Your task to perform on an android device: open a new tab in the chrome app Image 0: 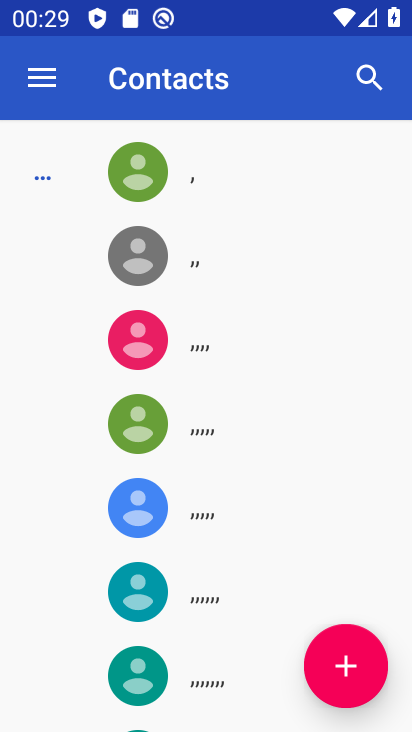
Step 0: press home button
Your task to perform on an android device: open a new tab in the chrome app Image 1: 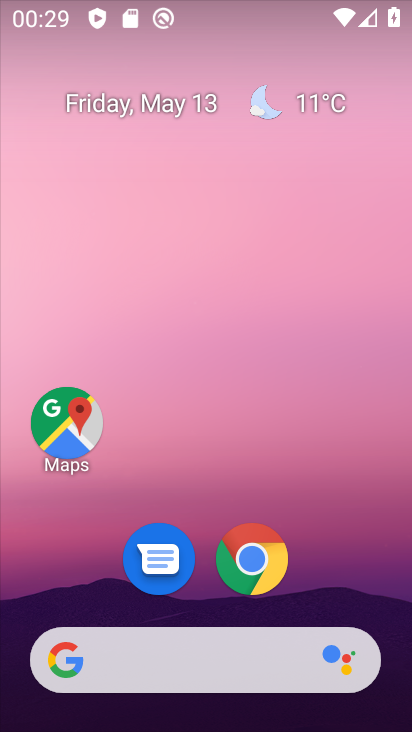
Step 1: click (250, 559)
Your task to perform on an android device: open a new tab in the chrome app Image 2: 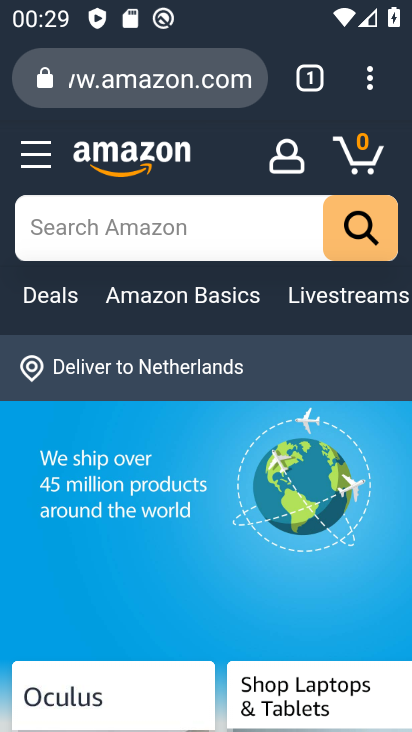
Step 2: click (309, 77)
Your task to perform on an android device: open a new tab in the chrome app Image 3: 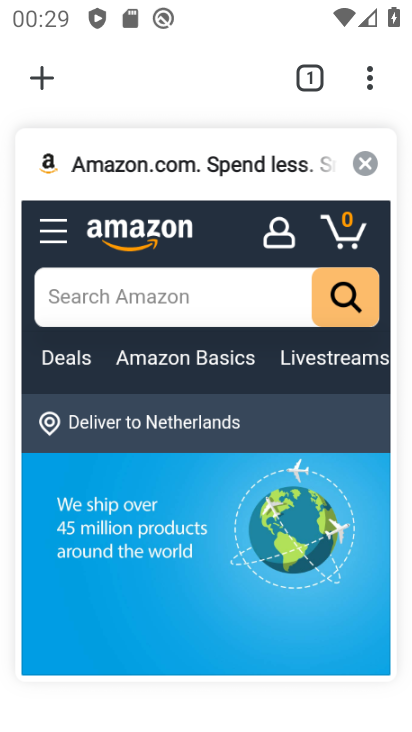
Step 3: click (48, 78)
Your task to perform on an android device: open a new tab in the chrome app Image 4: 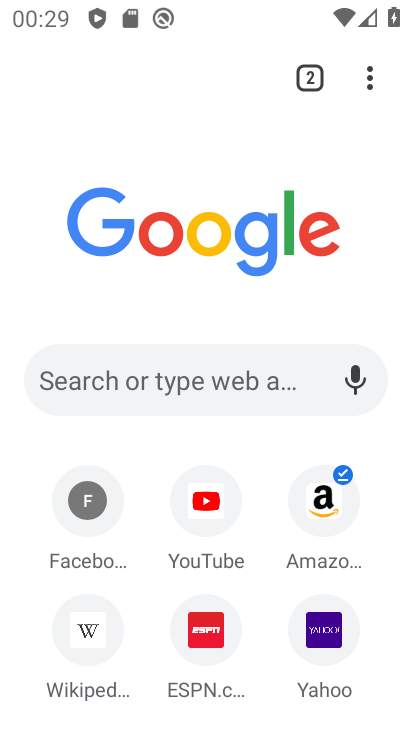
Step 4: task complete